Your task to perform on an android device: manage bookmarks in the chrome app Image 0: 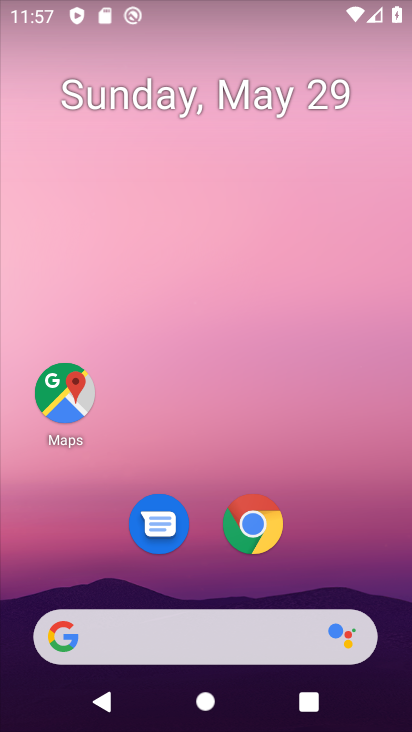
Step 0: click (255, 520)
Your task to perform on an android device: manage bookmarks in the chrome app Image 1: 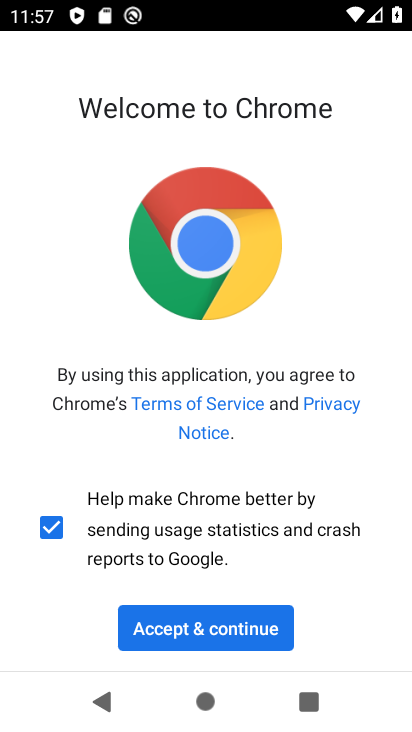
Step 1: click (229, 619)
Your task to perform on an android device: manage bookmarks in the chrome app Image 2: 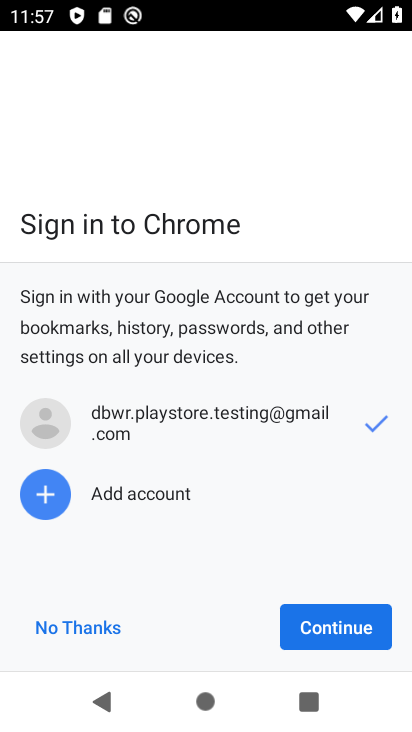
Step 2: click (327, 630)
Your task to perform on an android device: manage bookmarks in the chrome app Image 3: 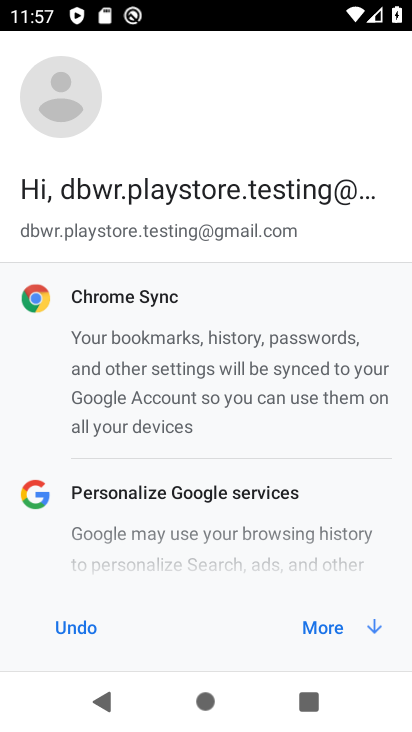
Step 3: click (327, 630)
Your task to perform on an android device: manage bookmarks in the chrome app Image 4: 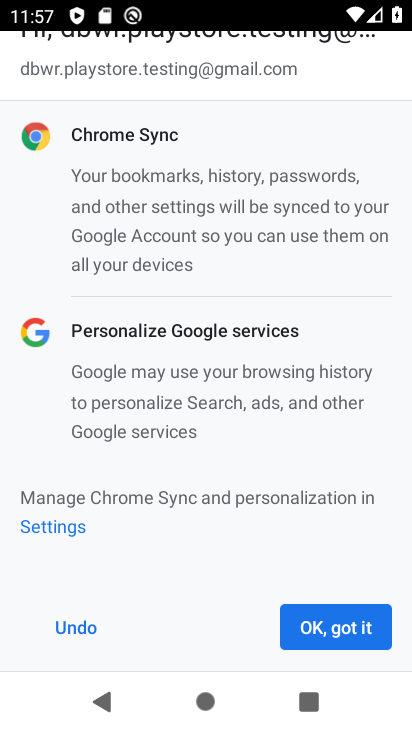
Step 4: click (327, 630)
Your task to perform on an android device: manage bookmarks in the chrome app Image 5: 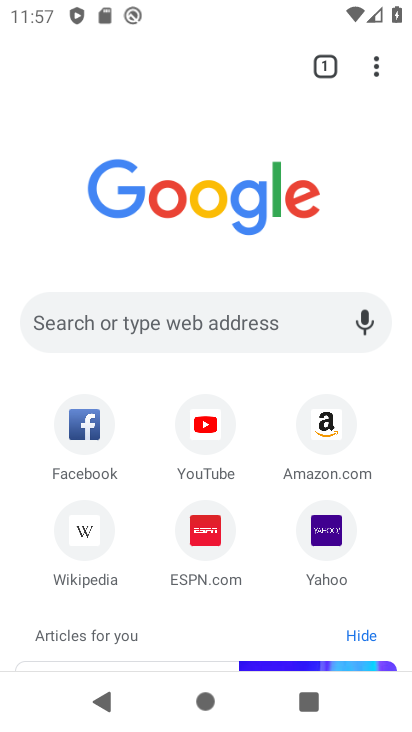
Step 5: drag from (254, 592) to (257, 392)
Your task to perform on an android device: manage bookmarks in the chrome app Image 6: 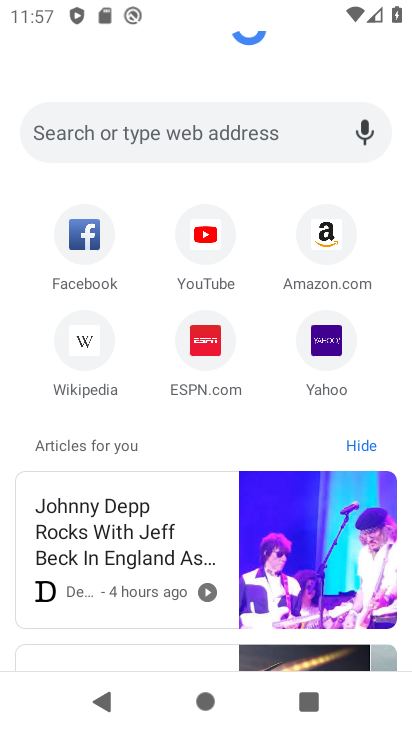
Step 6: drag from (269, 207) to (306, 467)
Your task to perform on an android device: manage bookmarks in the chrome app Image 7: 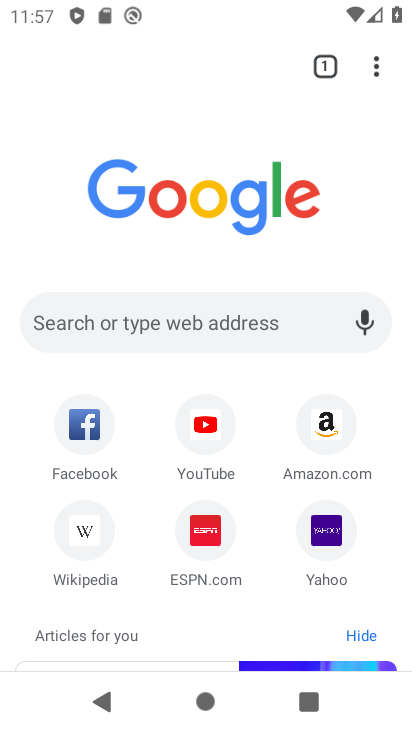
Step 7: click (369, 57)
Your task to perform on an android device: manage bookmarks in the chrome app Image 8: 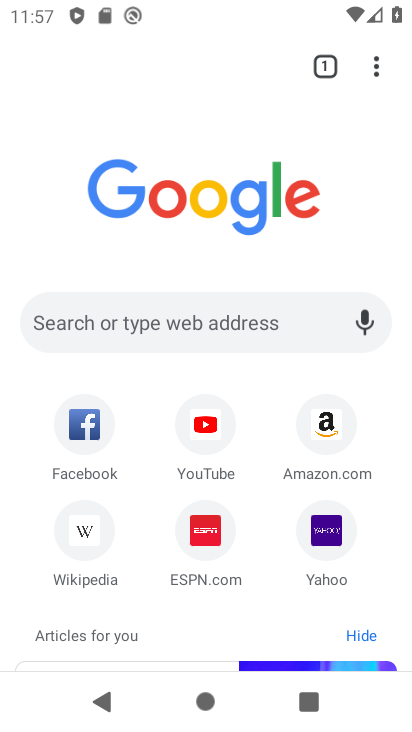
Step 8: click (371, 57)
Your task to perform on an android device: manage bookmarks in the chrome app Image 9: 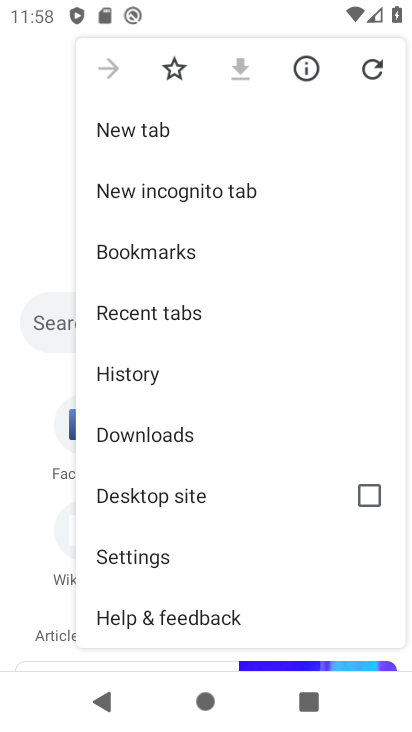
Step 9: click (220, 256)
Your task to perform on an android device: manage bookmarks in the chrome app Image 10: 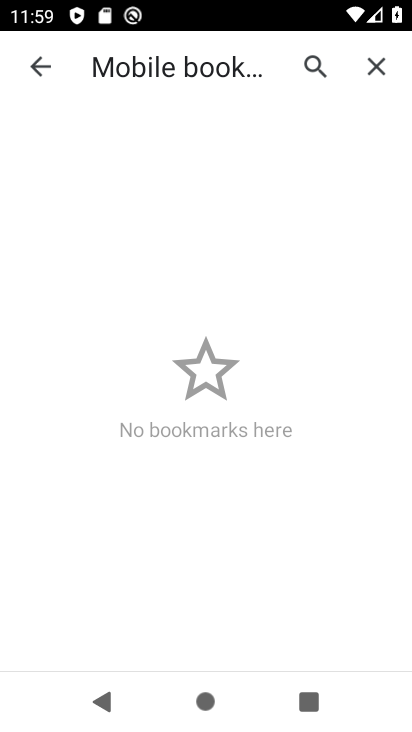
Step 10: task complete